Your task to perform on an android device: refresh tabs in the chrome app Image 0: 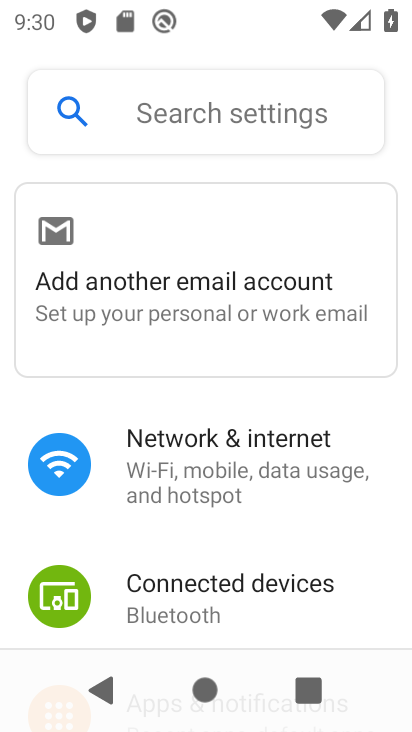
Step 0: press home button
Your task to perform on an android device: refresh tabs in the chrome app Image 1: 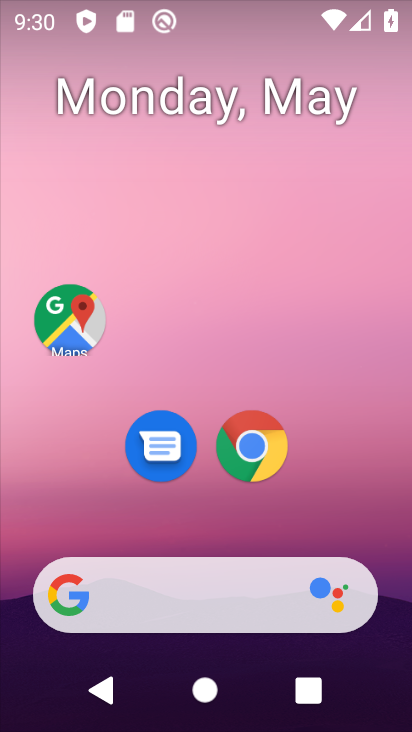
Step 1: click (250, 458)
Your task to perform on an android device: refresh tabs in the chrome app Image 2: 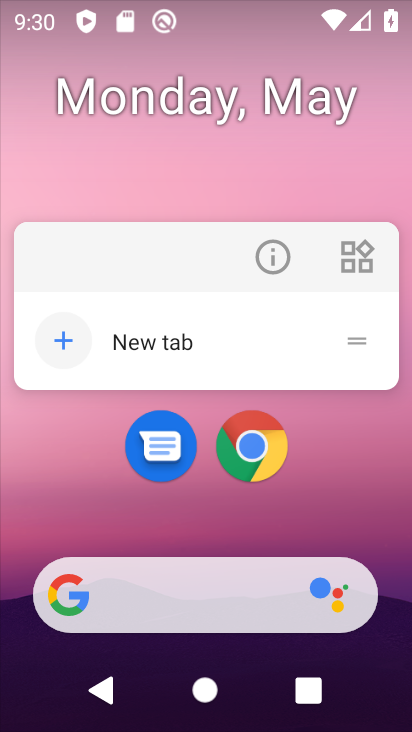
Step 2: click (250, 457)
Your task to perform on an android device: refresh tabs in the chrome app Image 3: 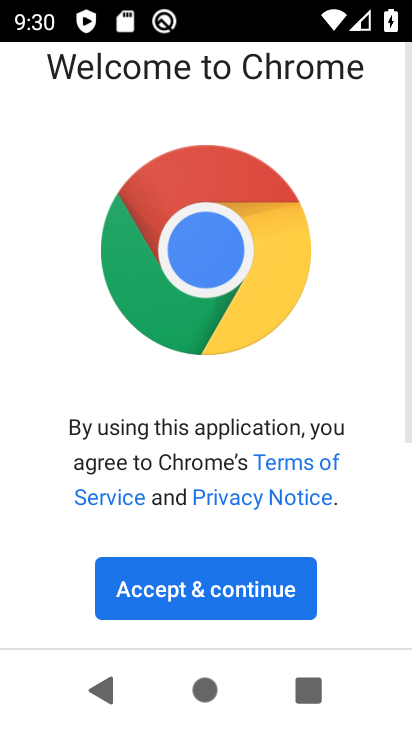
Step 3: click (237, 599)
Your task to perform on an android device: refresh tabs in the chrome app Image 4: 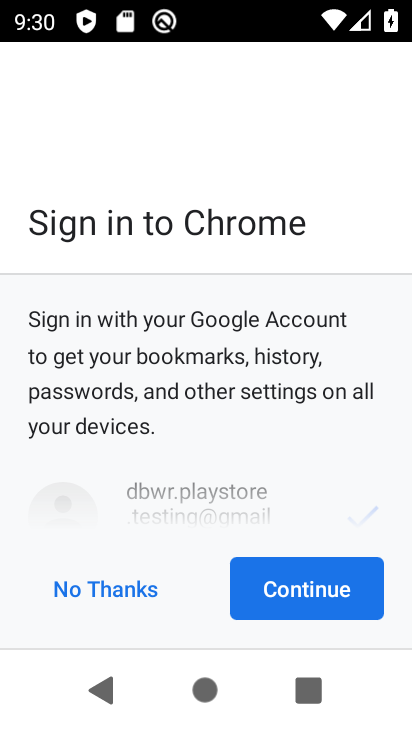
Step 4: click (305, 582)
Your task to perform on an android device: refresh tabs in the chrome app Image 5: 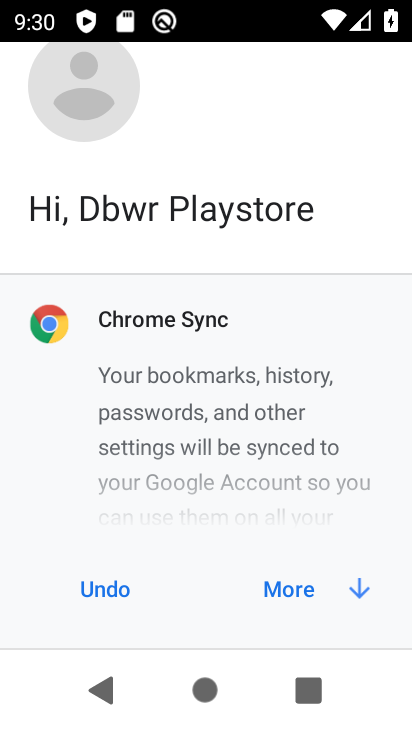
Step 5: click (293, 593)
Your task to perform on an android device: refresh tabs in the chrome app Image 6: 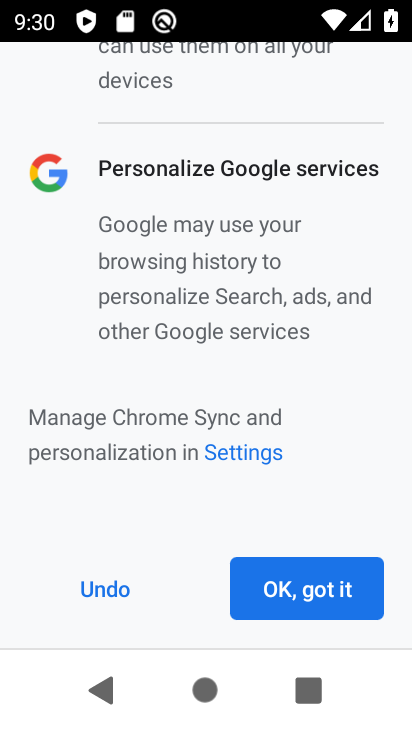
Step 6: click (293, 593)
Your task to perform on an android device: refresh tabs in the chrome app Image 7: 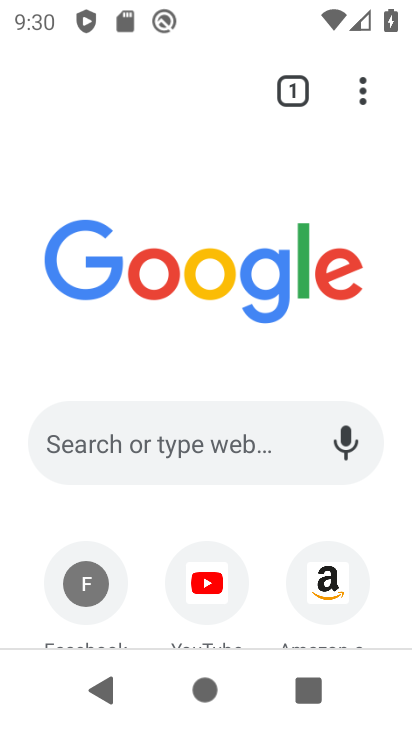
Step 7: task complete